Your task to perform on an android device: Open settings on Google Maps Image 0: 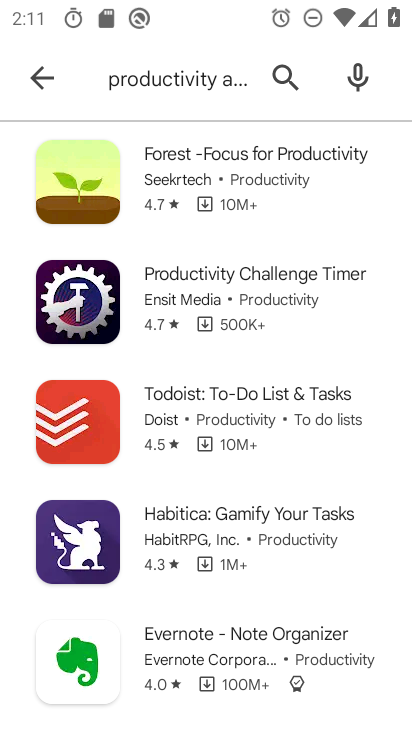
Step 0: press home button
Your task to perform on an android device: Open settings on Google Maps Image 1: 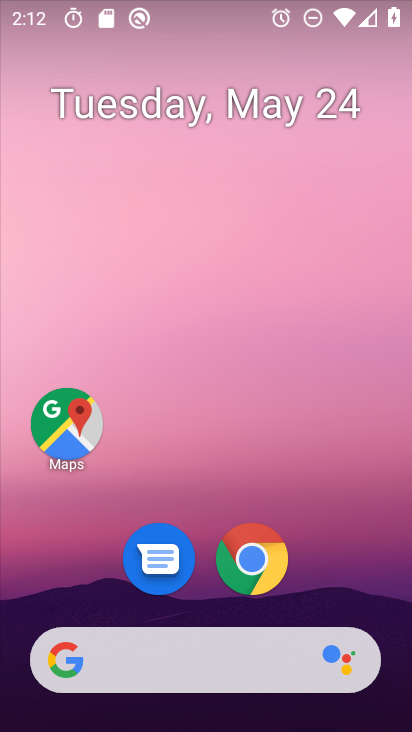
Step 1: click (58, 411)
Your task to perform on an android device: Open settings on Google Maps Image 2: 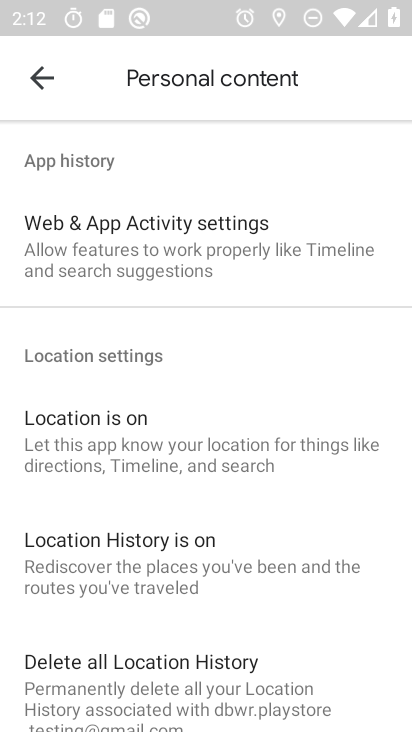
Step 2: drag from (377, 683) to (405, 316)
Your task to perform on an android device: Open settings on Google Maps Image 3: 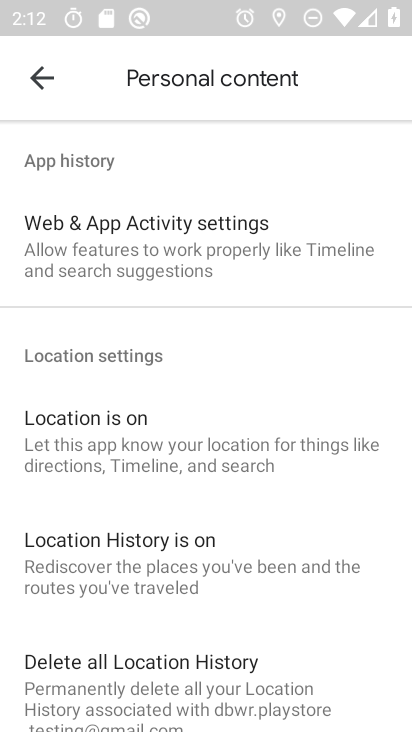
Step 3: drag from (367, 652) to (308, 286)
Your task to perform on an android device: Open settings on Google Maps Image 4: 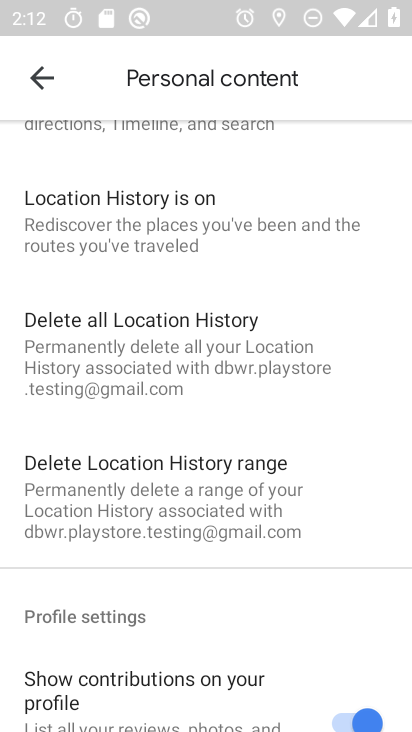
Step 4: click (22, 71)
Your task to perform on an android device: Open settings on Google Maps Image 5: 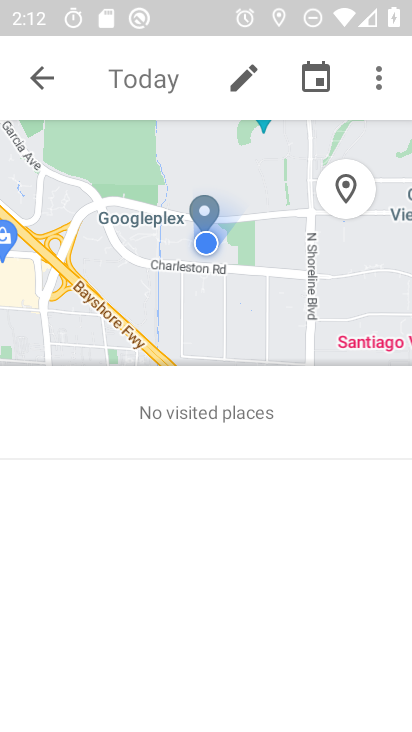
Step 5: click (22, 72)
Your task to perform on an android device: Open settings on Google Maps Image 6: 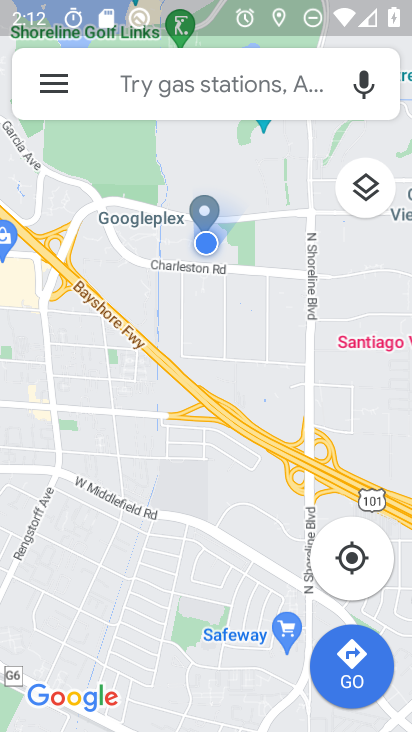
Step 6: task complete